Your task to perform on an android device: uninstall "Google Home" Image 0: 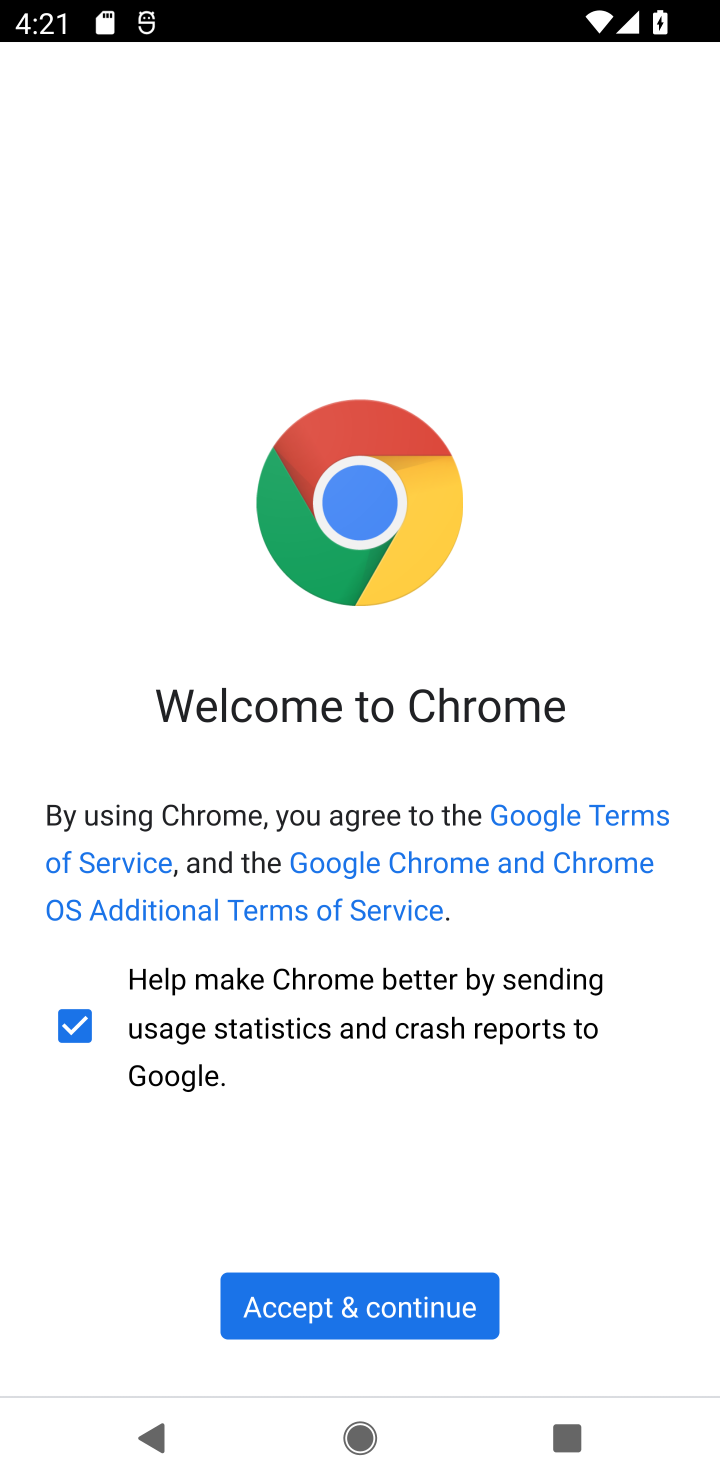
Step 0: press back button
Your task to perform on an android device: uninstall "Google Home" Image 1: 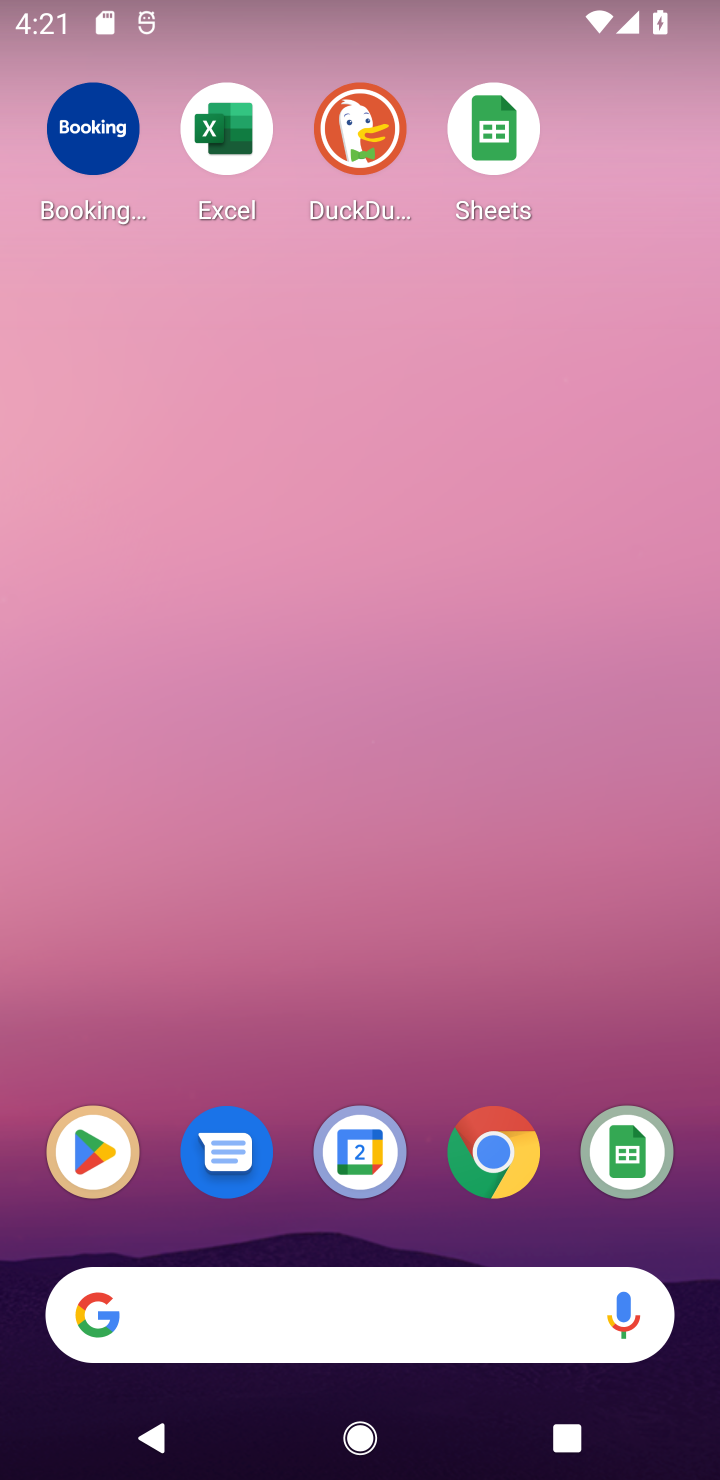
Step 1: drag from (384, 1231) to (330, 147)
Your task to perform on an android device: uninstall "Google Home" Image 2: 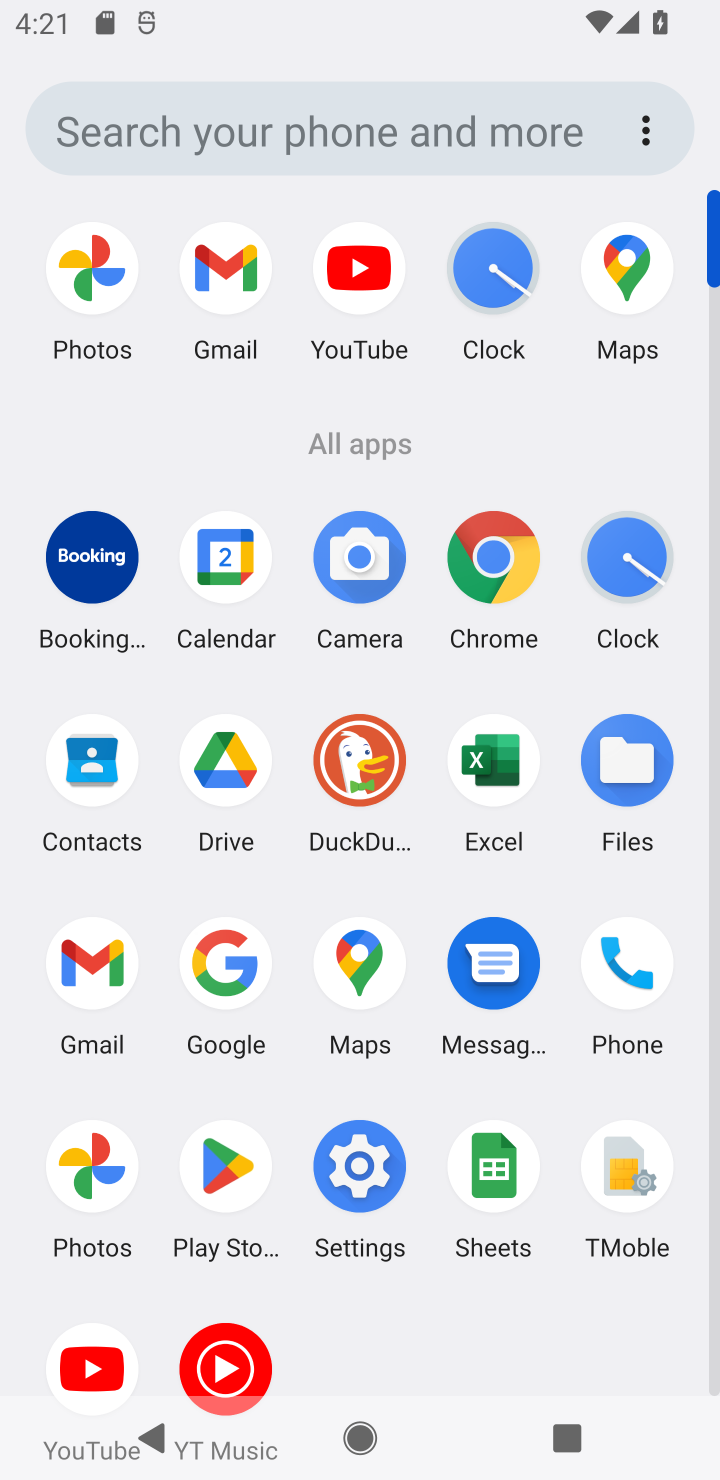
Step 2: click (218, 1193)
Your task to perform on an android device: uninstall "Google Home" Image 3: 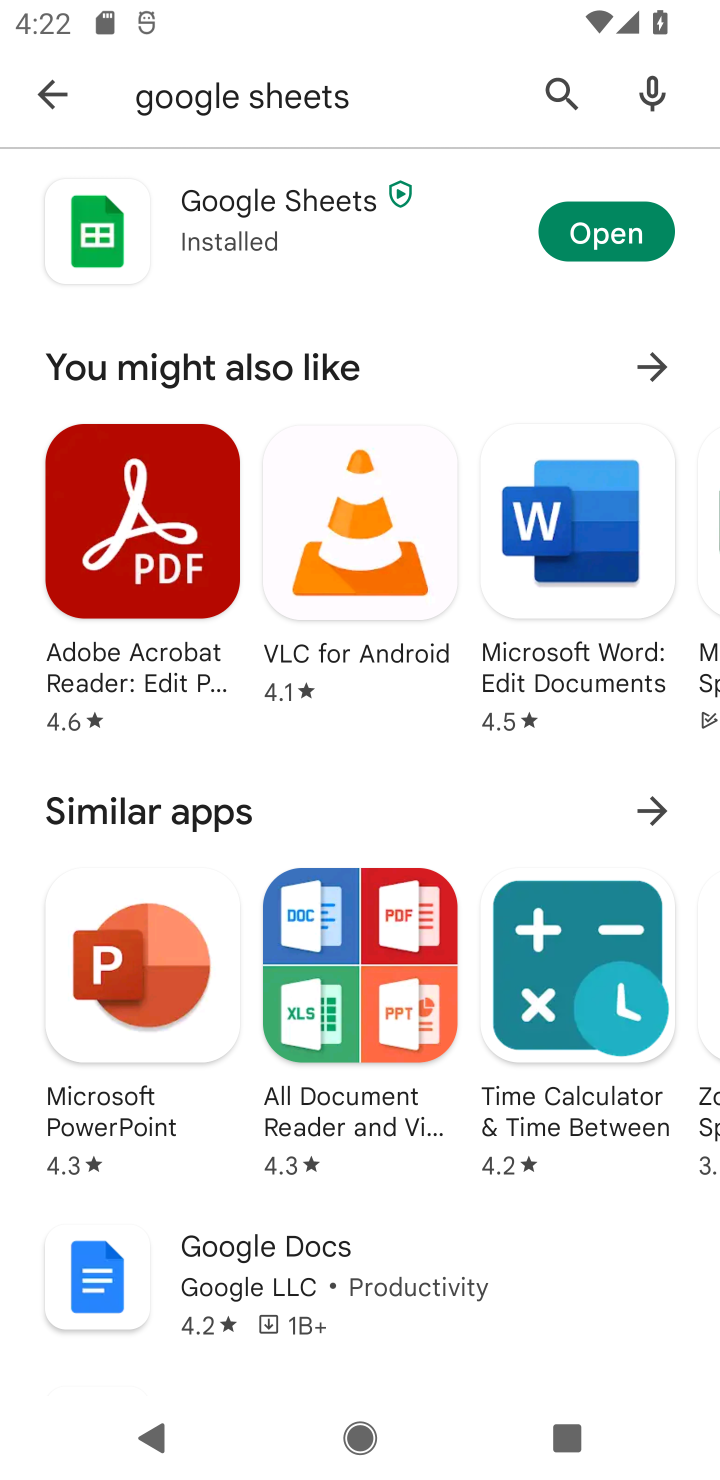
Step 3: click (50, 89)
Your task to perform on an android device: uninstall "Google Home" Image 4: 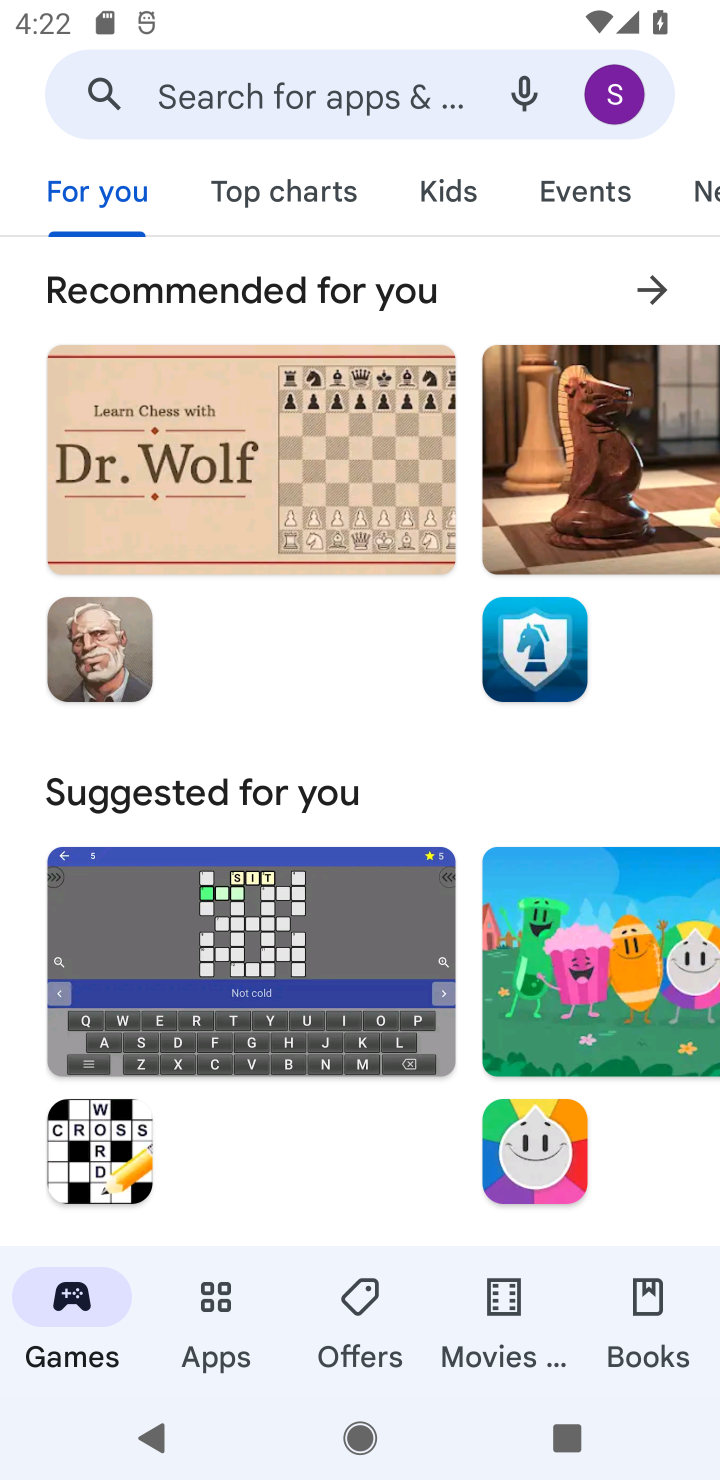
Step 4: click (223, 98)
Your task to perform on an android device: uninstall "Google Home" Image 5: 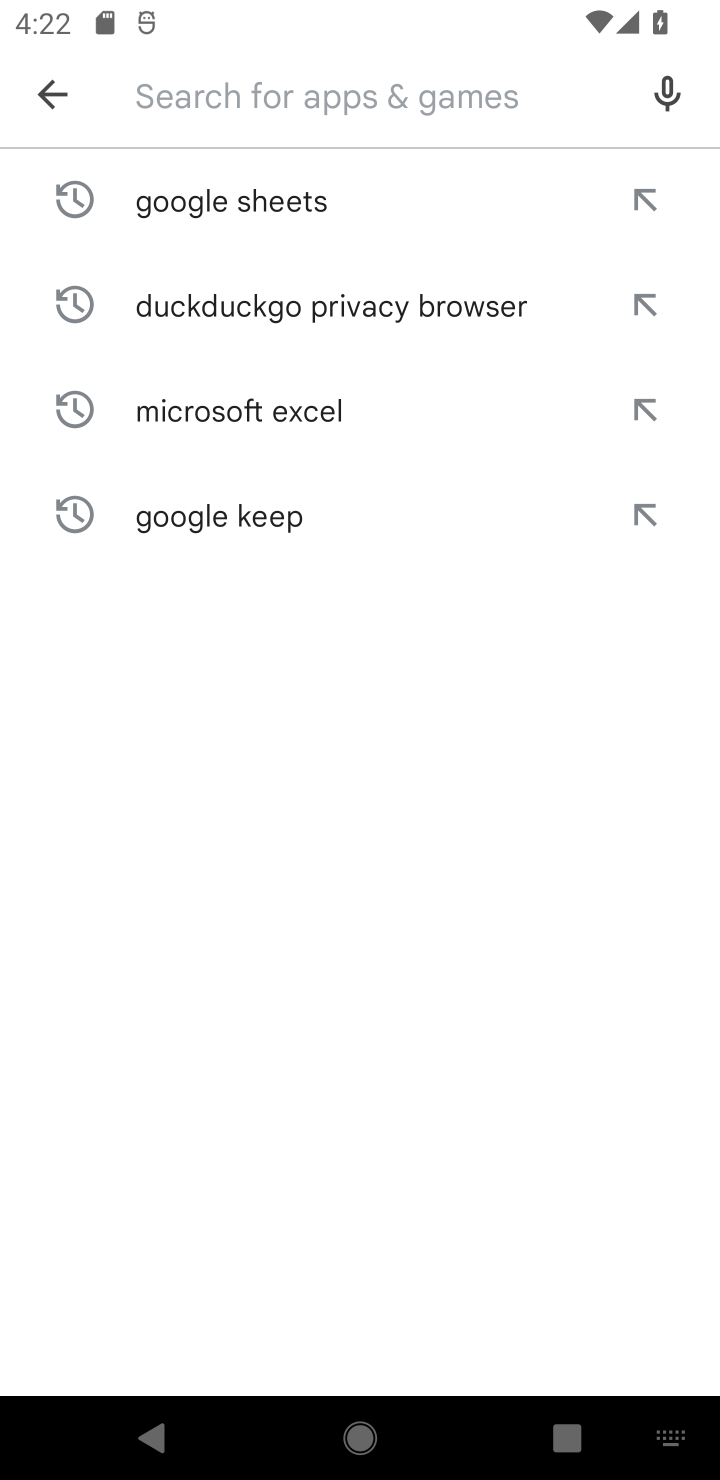
Step 5: type "Google Home"
Your task to perform on an android device: uninstall "Google Home" Image 6: 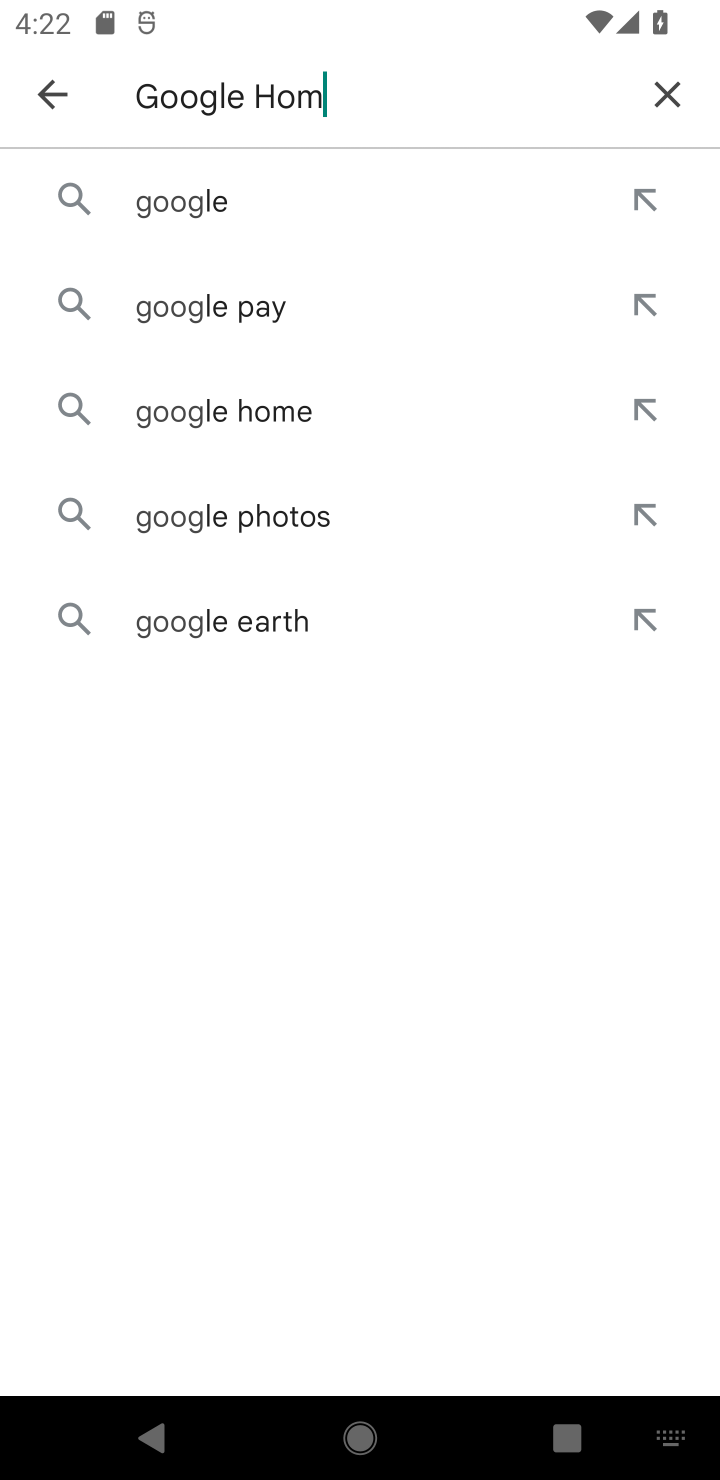
Step 6: type ""
Your task to perform on an android device: uninstall "Google Home" Image 7: 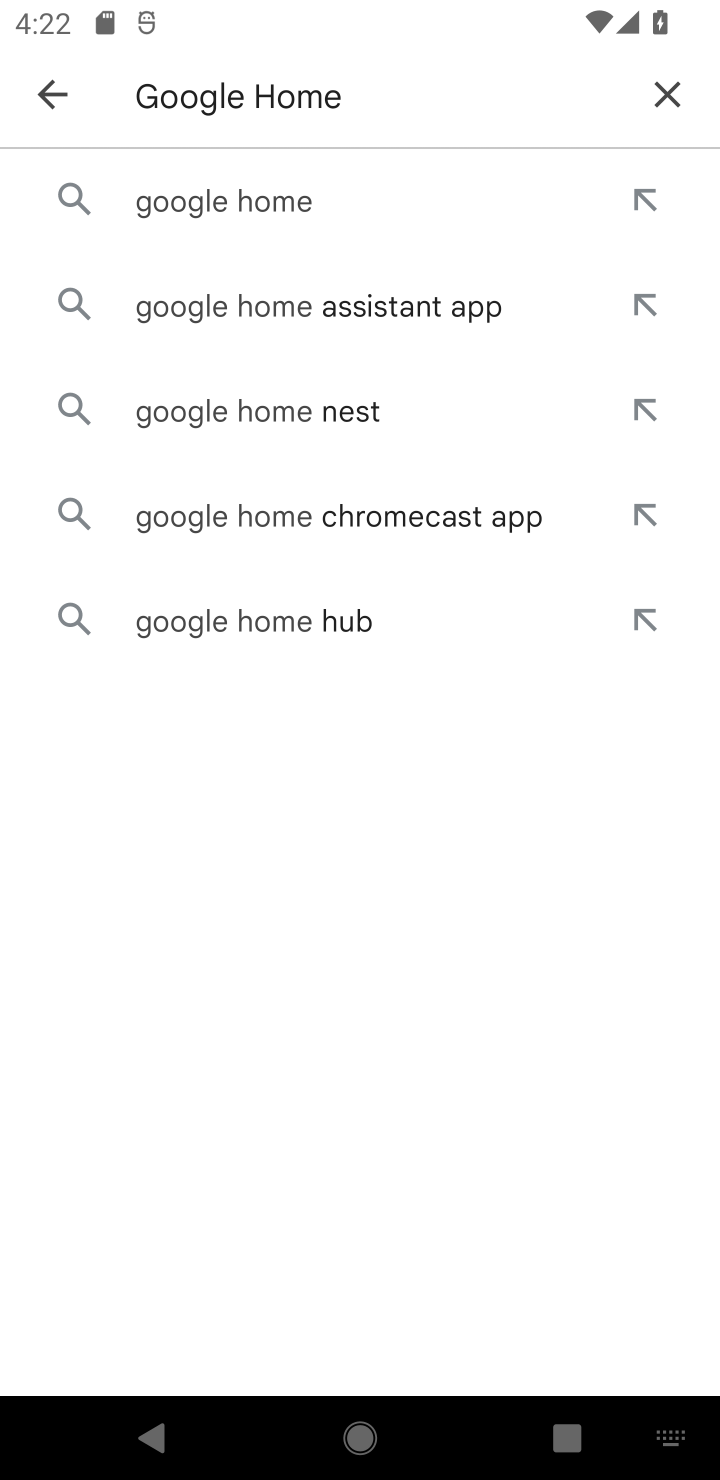
Step 7: click (209, 231)
Your task to perform on an android device: uninstall "Google Home" Image 8: 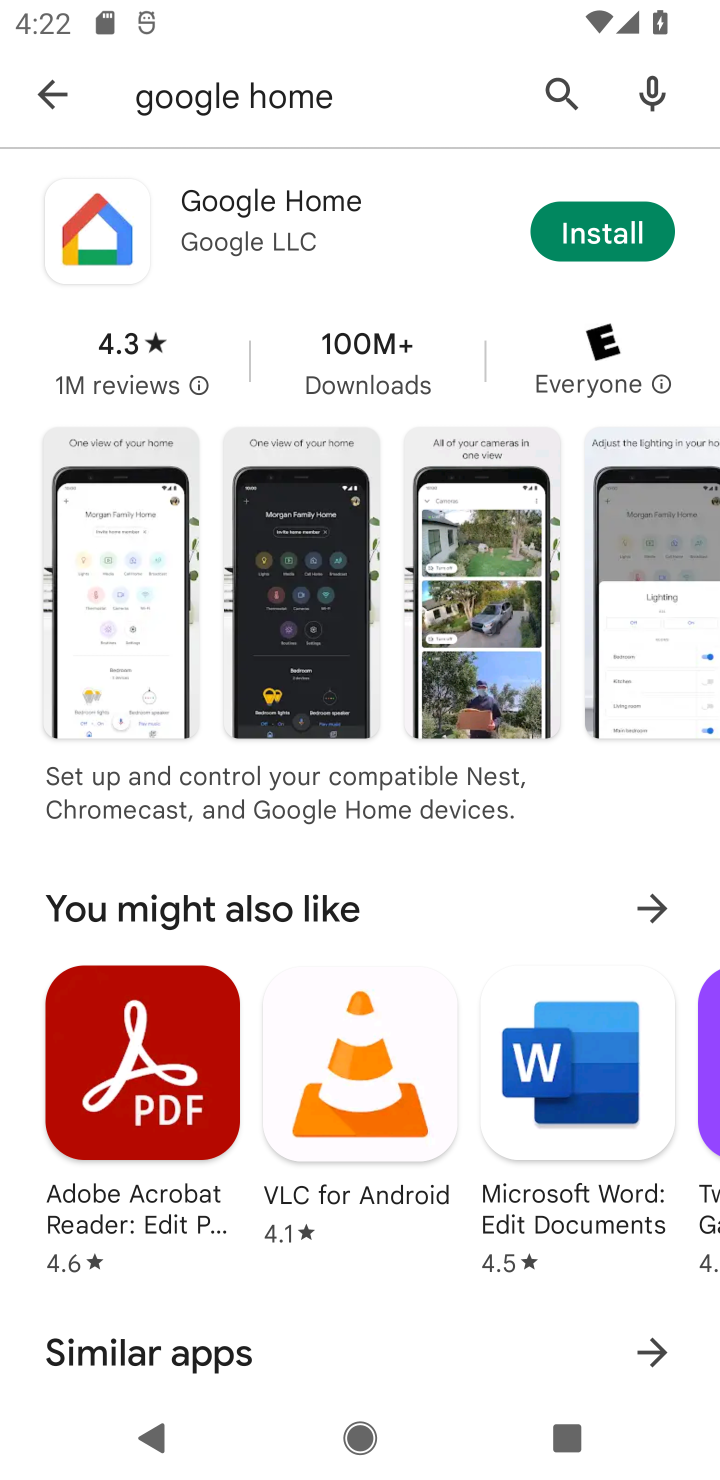
Step 8: task complete